Your task to perform on an android device: Open Google Maps Image 0: 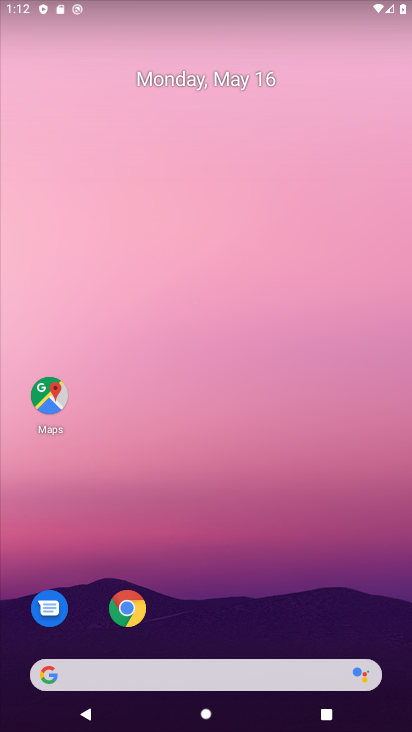
Step 0: click (55, 399)
Your task to perform on an android device: Open Google Maps Image 1: 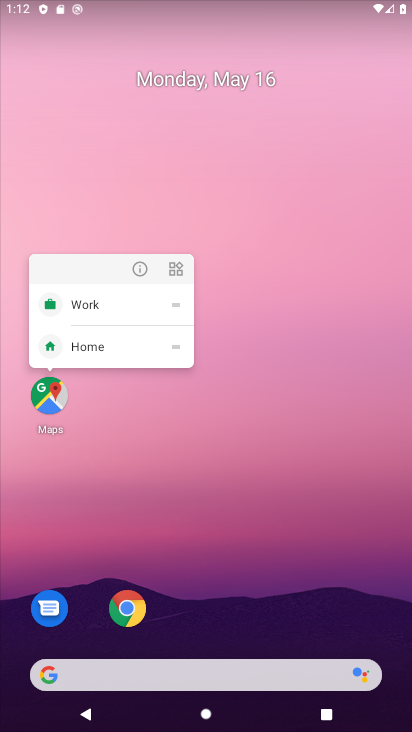
Step 1: click (56, 404)
Your task to perform on an android device: Open Google Maps Image 2: 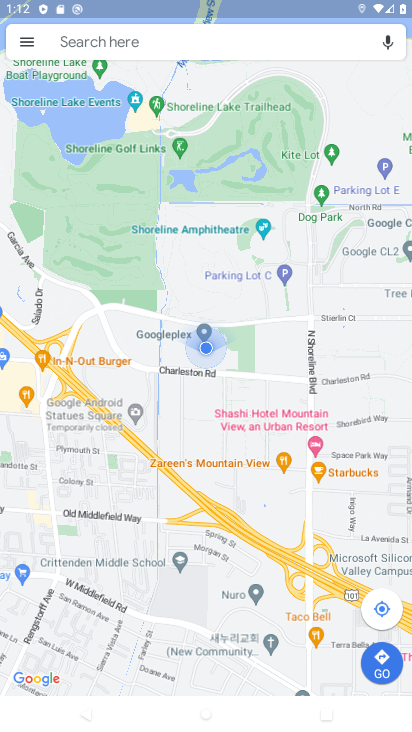
Step 2: task complete